Your task to perform on an android device: check storage Image 0: 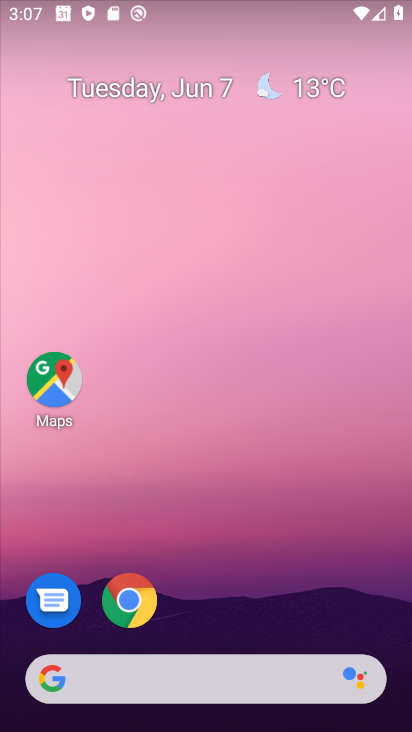
Step 0: drag from (212, 600) to (163, 87)
Your task to perform on an android device: check storage Image 1: 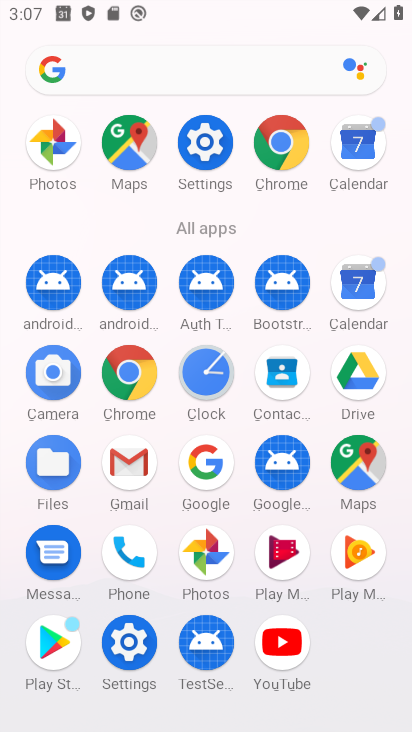
Step 1: click (204, 137)
Your task to perform on an android device: check storage Image 2: 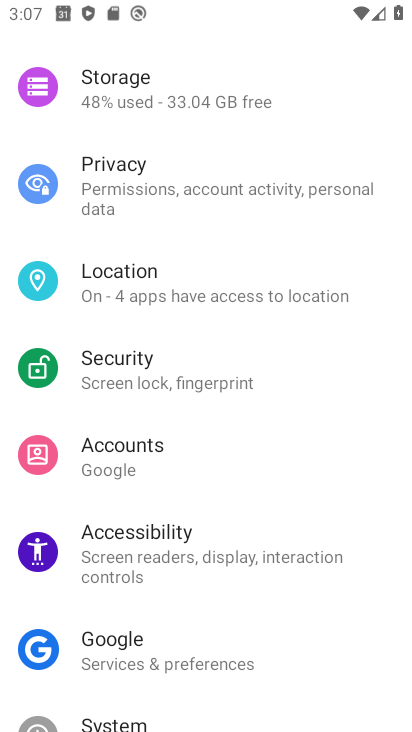
Step 2: drag from (196, 635) to (215, 594)
Your task to perform on an android device: check storage Image 3: 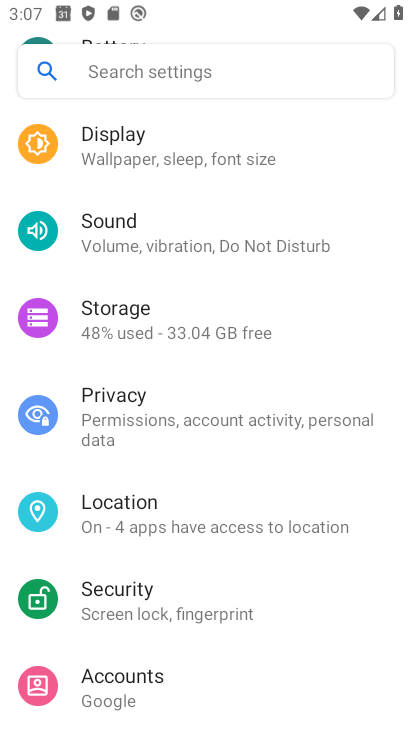
Step 3: drag from (140, 138) to (151, 520)
Your task to perform on an android device: check storage Image 4: 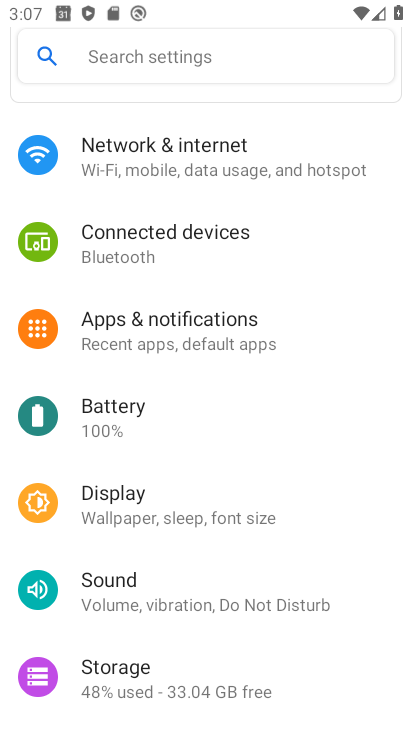
Step 4: click (129, 670)
Your task to perform on an android device: check storage Image 5: 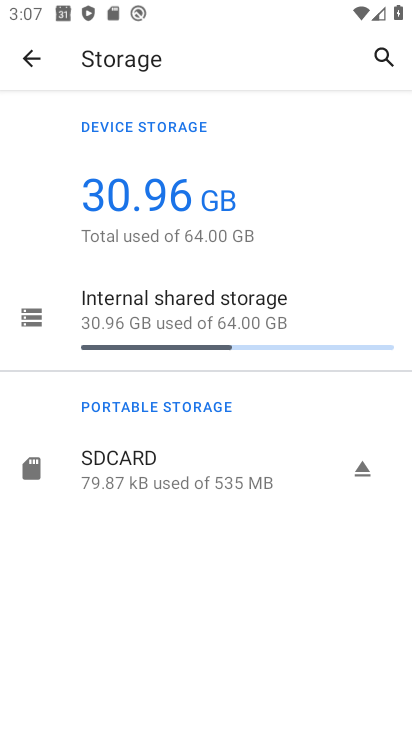
Step 5: task complete